Your task to perform on an android device: open app "Google News" Image 0: 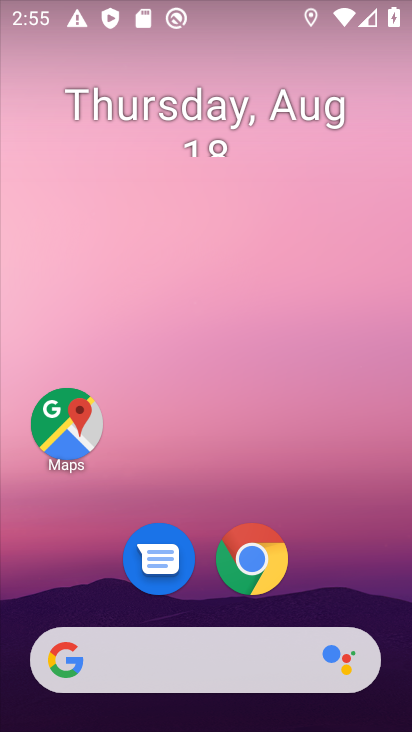
Step 0: drag from (176, 582) to (153, 3)
Your task to perform on an android device: open app "Google News" Image 1: 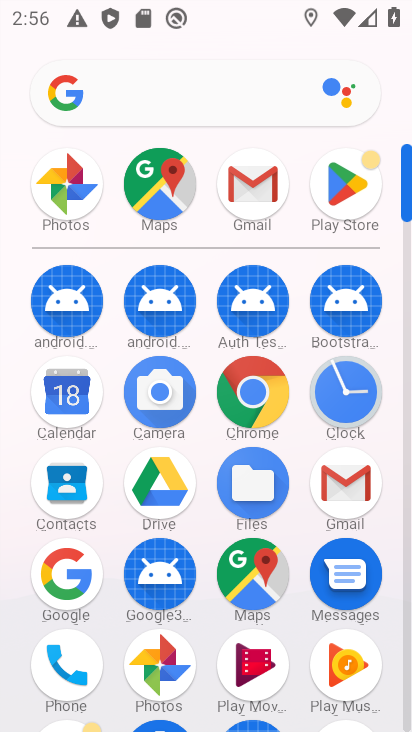
Step 1: click (354, 197)
Your task to perform on an android device: open app "Google News" Image 2: 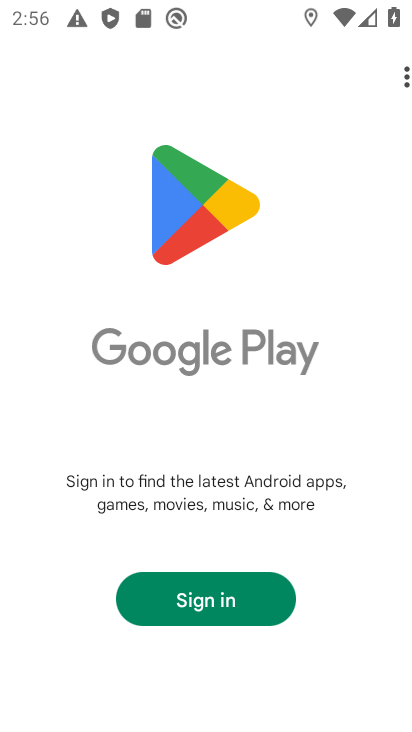
Step 2: click (182, 598)
Your task to perform on an android device: open app "Google News" Image 3: 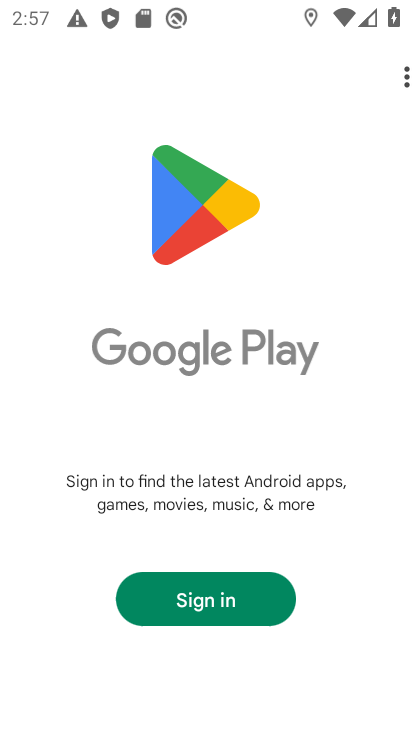
Step 3: click (242, 604)
Your task to perform on an android device: open app "Google News" Image 4: 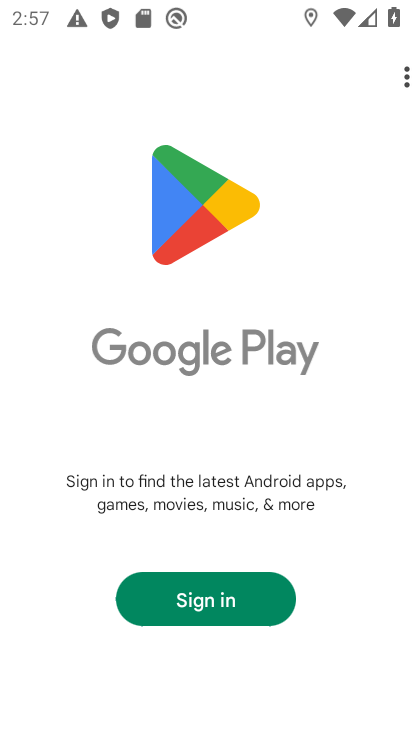
Step 4: click (207, 610)
Your task to perform on an android device: open app "Google News" Image 5: 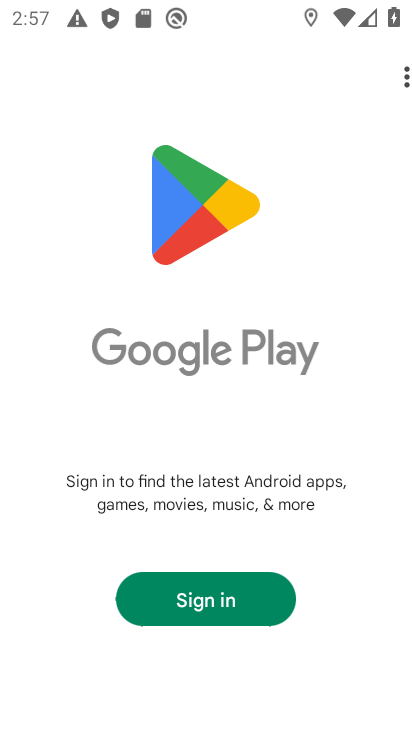
Step 5: click (196, 595)
Your task to perform on an android device: open app "Google News" Image 6: 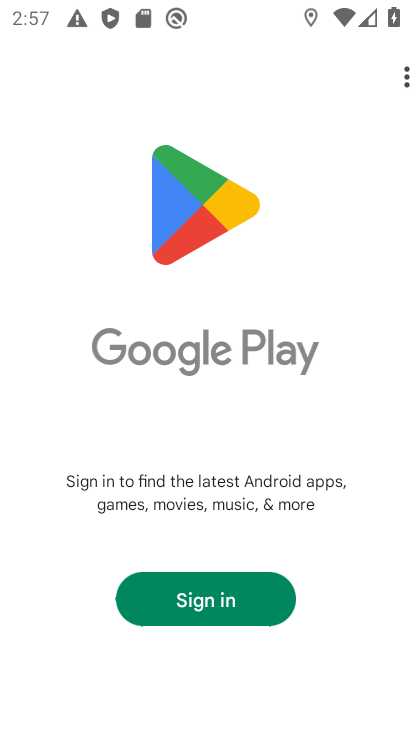
Step 6: click (196, 594)
Your task to perform on an android device: open app "Google News" Image 7: 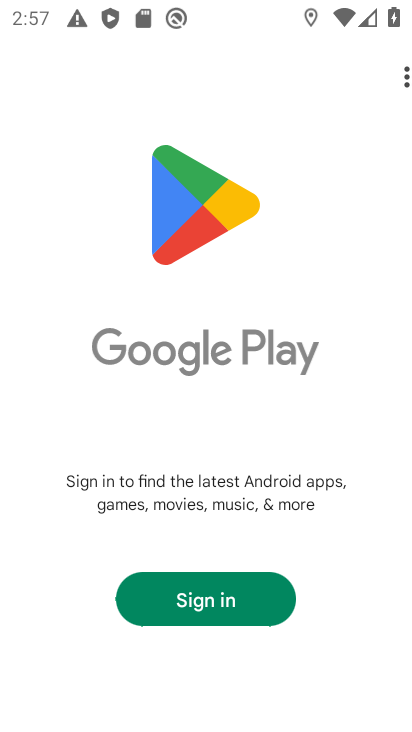
Step 7: click (196, 594)
Your task to perform on an android device: open app "Google News" Image 8: 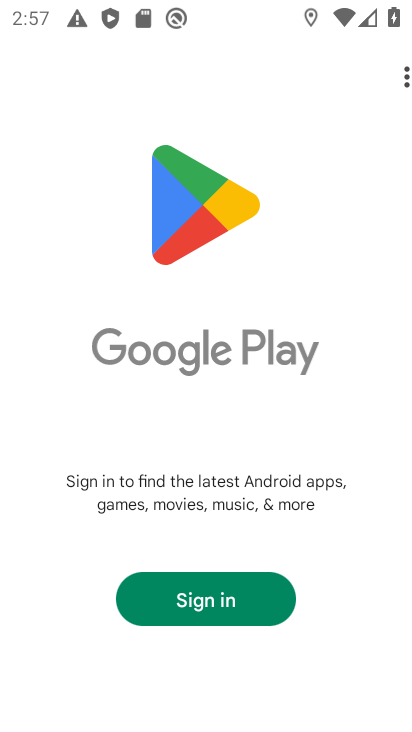
Step 8: click (192, 603)
Your task to perform on an android device: open app "Google News" Image 9: 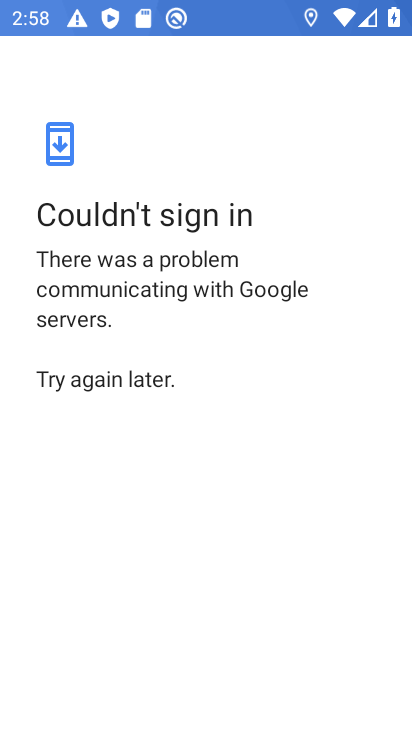
Step 9: task complete